Your task to perform on an android device: turn notification dots on Image 0: 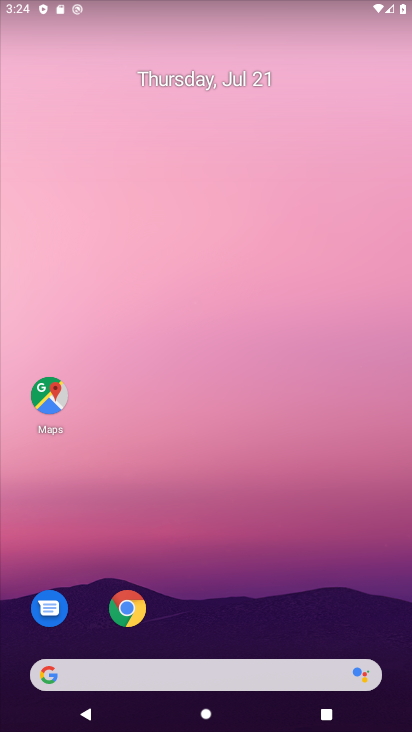
Step 0: drag from (259, 667) to (307, 20)
Your task to perform on an android device: turn notification dots on Image 1: 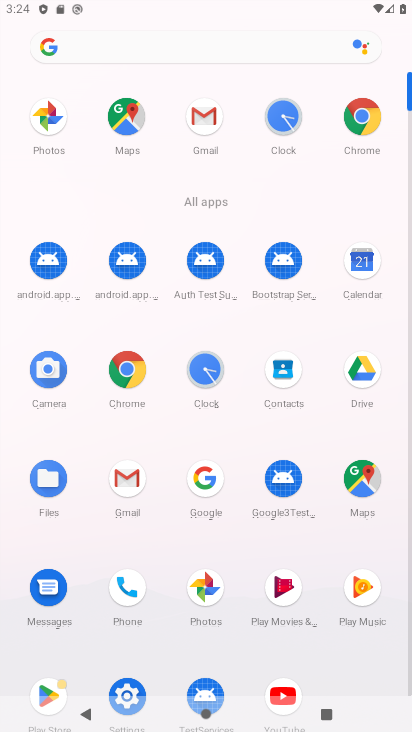
Step 1: click (135, 693)
Your task to perform on an android device: turn notification dots on Image 2: 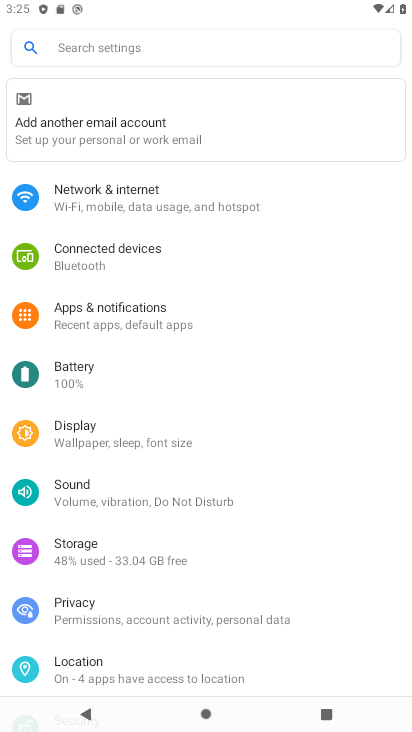
Step 2: click (152, 328)
Your task to perform on an android device: turn notification dots on Image 3: 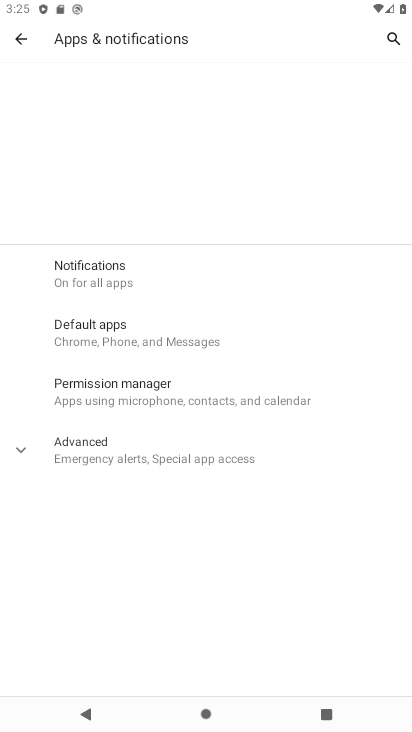
Step 3: click (146, 281)
Your task to perform on an android device: turn notification dots on Image 4: 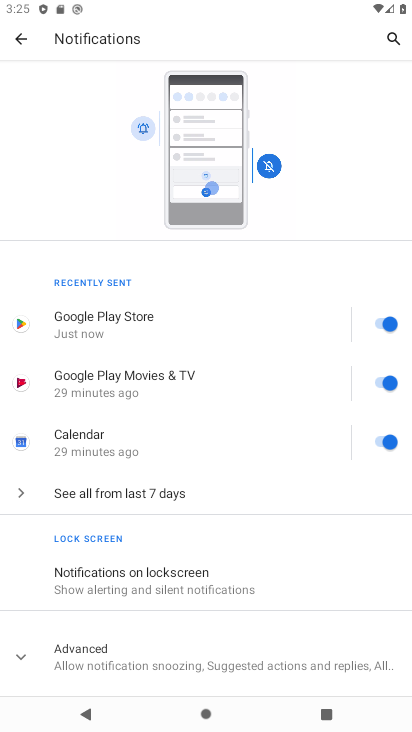
Step 4: click (136, 653)
Your task to perform on an android device: turn notification dots on Image 5: 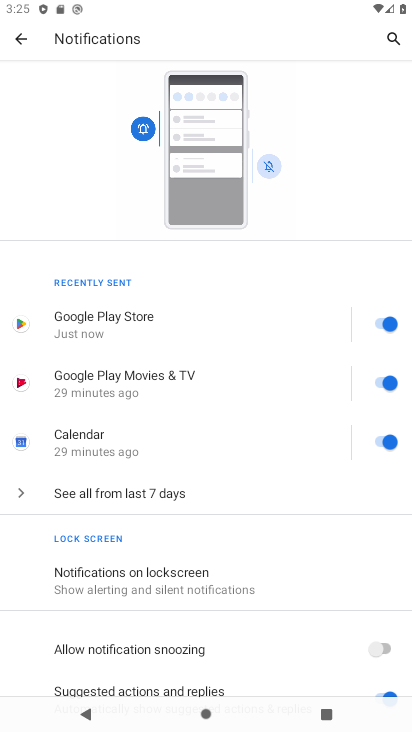
Step 5: task complete